Your task to perform on an android device: allow notifications from all sites in the chrome app Image 0: 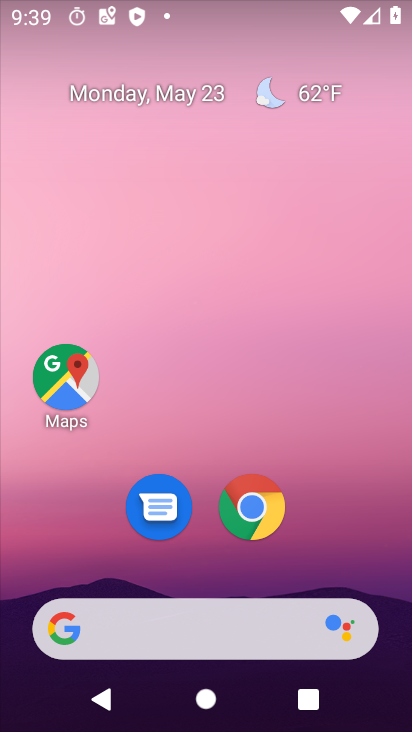
Step 0: click (254, 507)
Your task to perform on an android device: allow notifications from all sites in the chrome app Image 1: 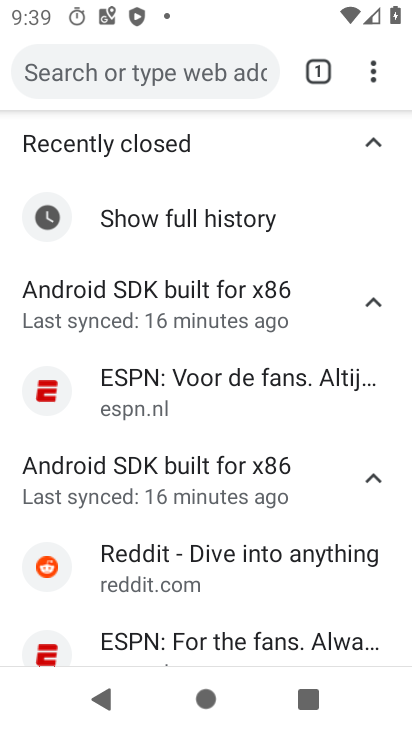
Step 1: click (374, 69)
Your task to perform on an android device: allow notifications from all sites in the chrome app Image 2: 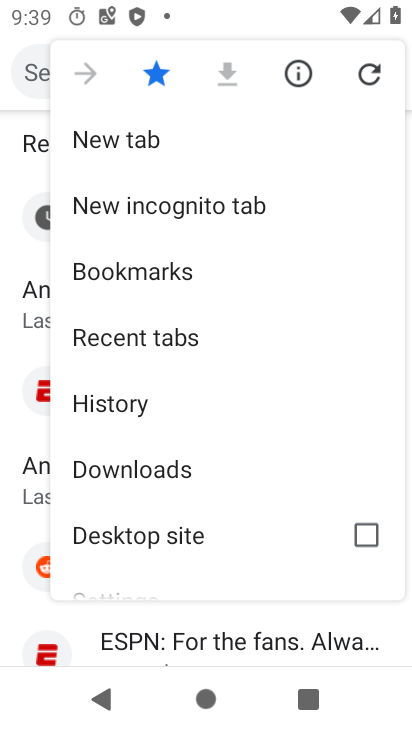
Step 2: drag from (207, 516) to (267, 310)
Your task to perform on an android device: allow notifications from all sites in the chrome app Image 3: 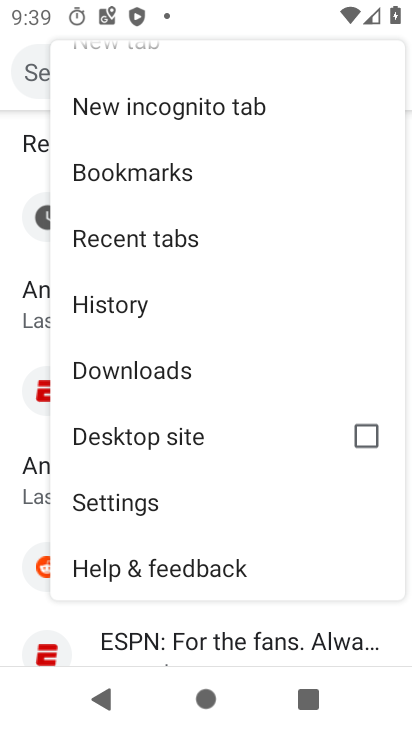
Step 3: click (127, 509)
Your task to perform on an android device: allow notifications from all sites in the chrome app Image 4: 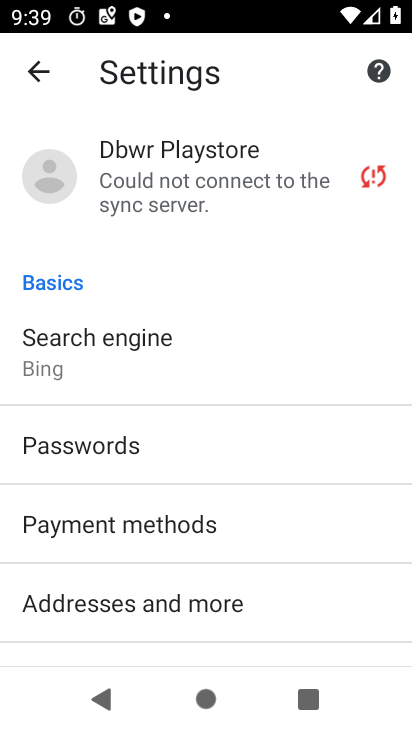
Step 4: drag from (146, 566) to (221, 450)
Your task to perform on an android device: allow notifications from all sites in the chrome app Image 5: 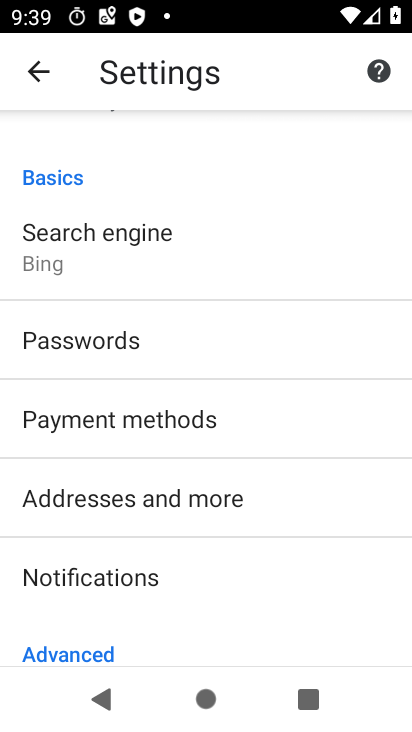
Step 5: drag from (198, 603) to (245, 504)
Your task to perform on an android device: allow notifications from all sites in the chrome app Image 6: 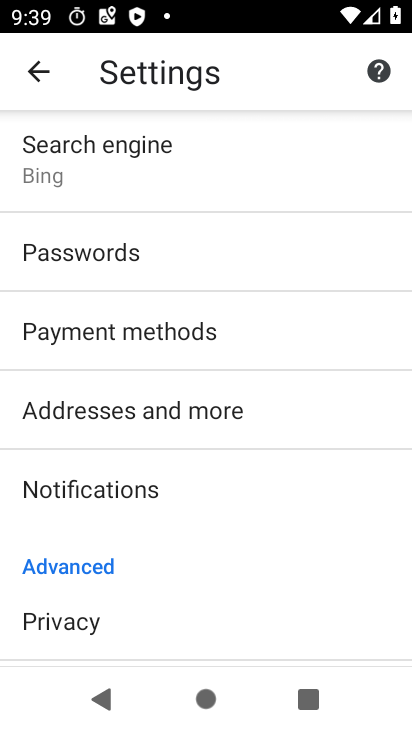
Step 6: drag from (175, 600) to (231, 491)
Your task to perform on an android device: allow notifications from all sites in the chrome app Image 7: 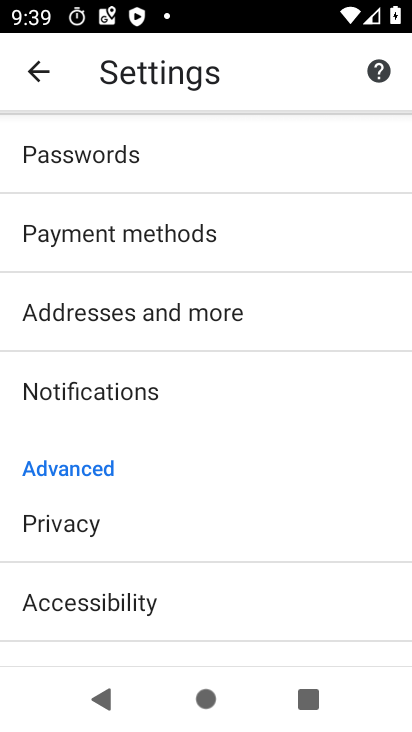
Step 7: drag from (180, 599) to (255, 494)
Your task to perform on an android device: allow notifications from all sites in the chrome app Image 8: 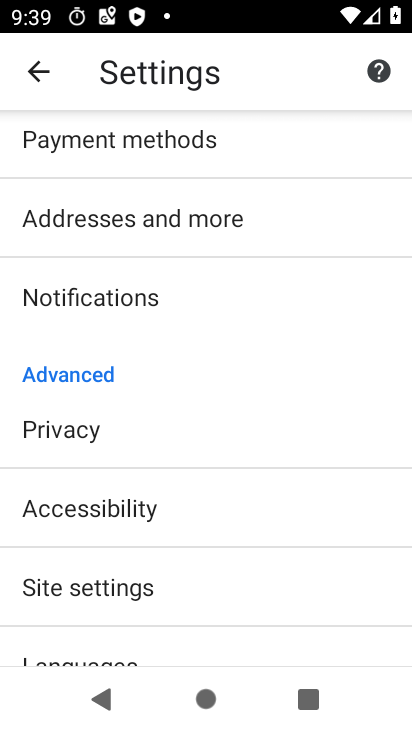
Step 8: click (125, 588)
Your task to perform on an android device: allow notifications from all sites in the chrome app Image 9: 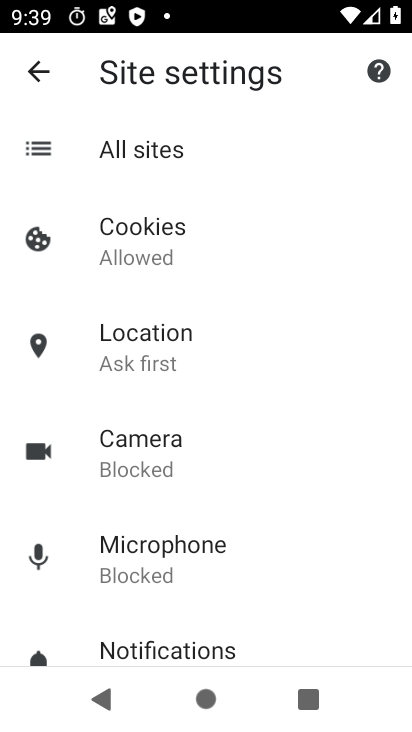
Step 9: drag from (169, 590) to (266, 474)
Your task to perform on an android device: allow notifications from all sites in the chrome app Image 10: 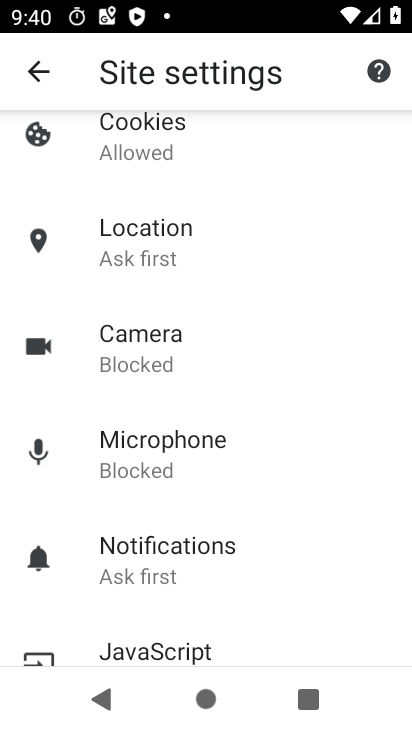
Step 10: click (198, 547)
Your task to perform on an android device: allow notifications from all sites in the chrome app Image 11: 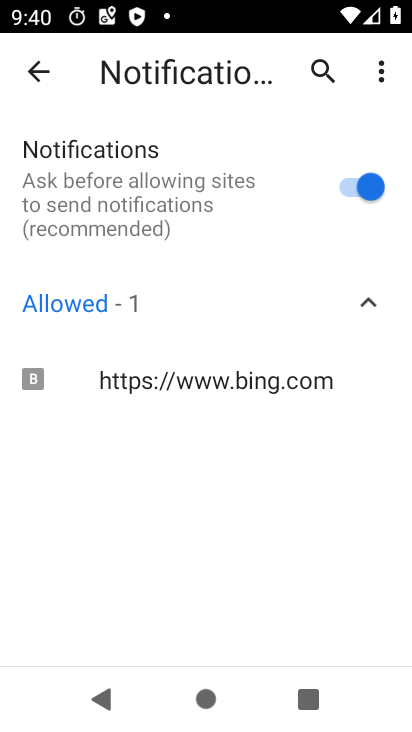
Step 11: task complete